Your task to perform on an android device: Open calendar and show me the second week of next month Image 0: 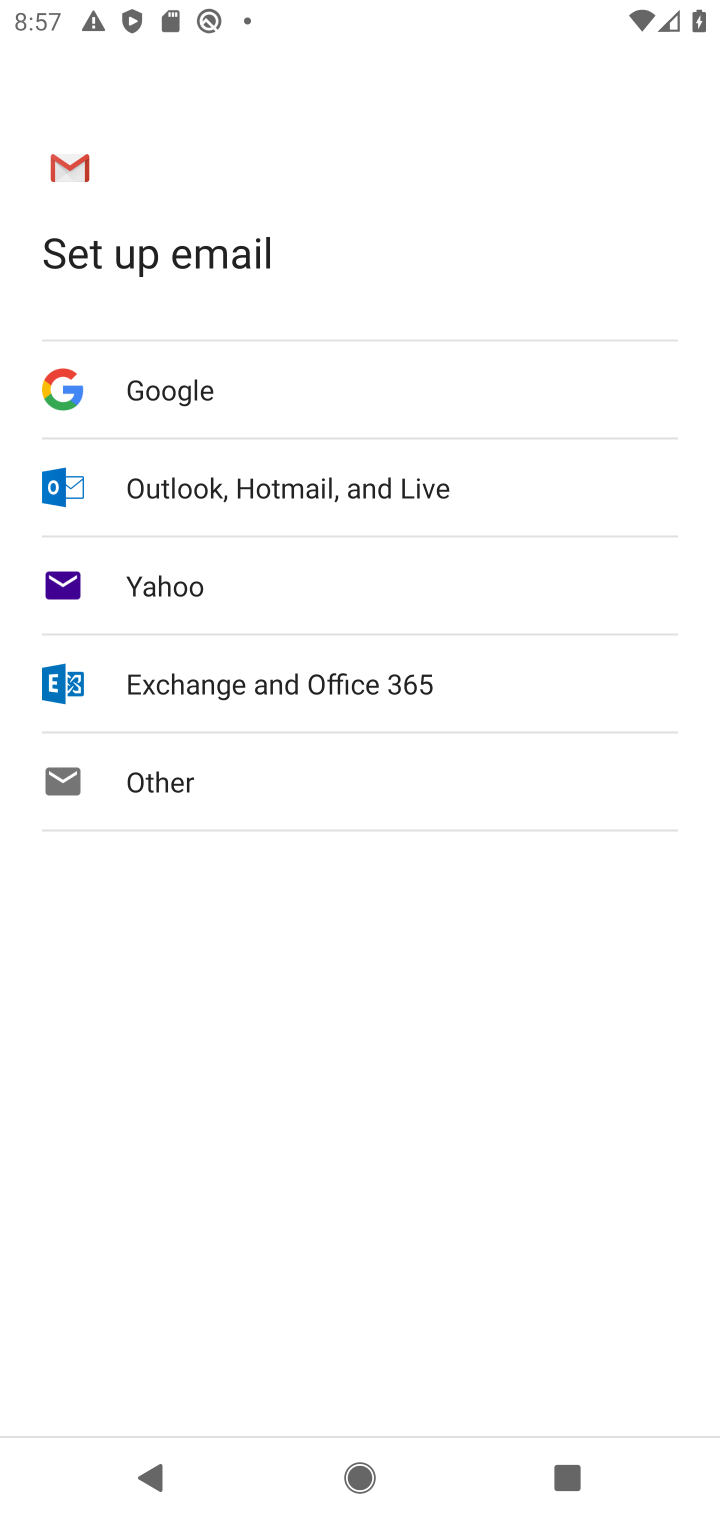
Step 0: press home button
Your task to perform on an android device: Open calendar and show me the second week of next month Image 1: 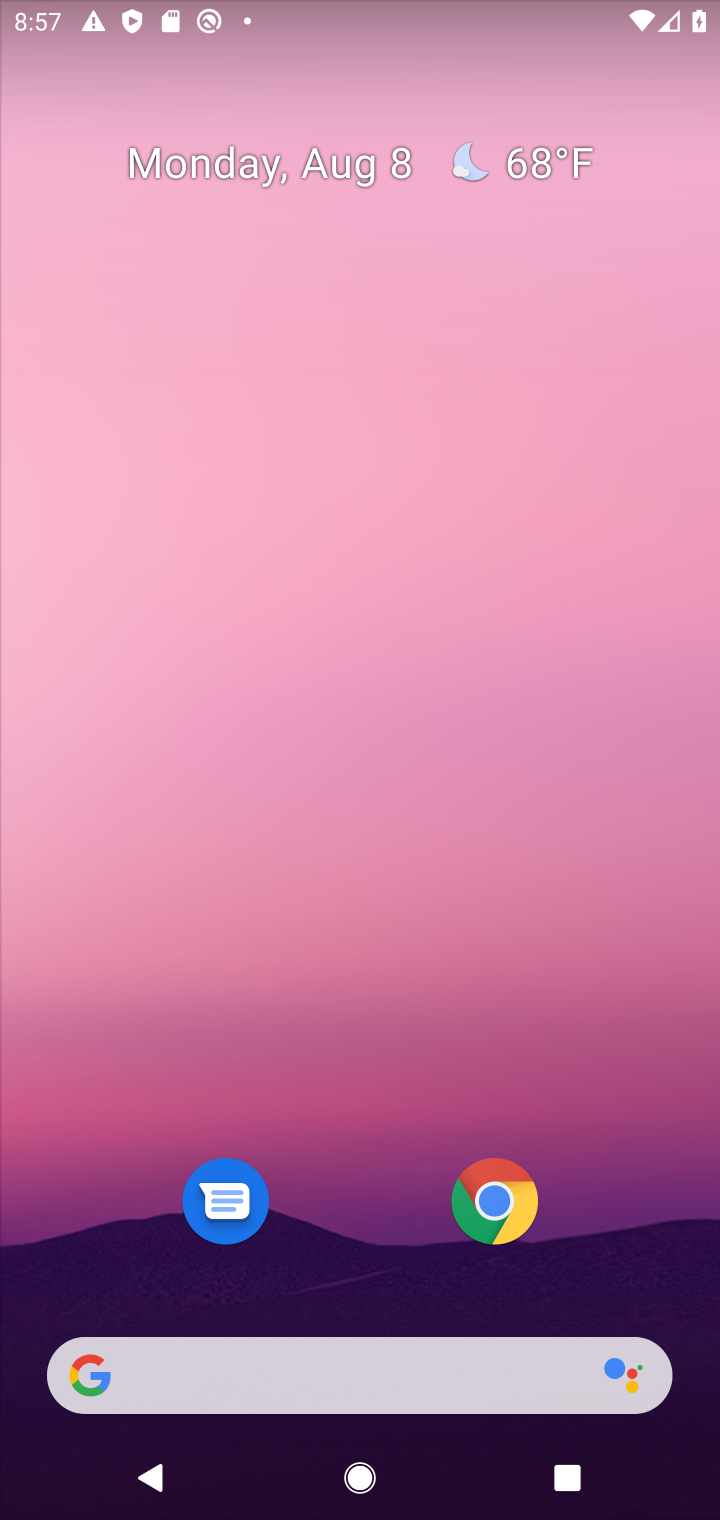
Step 1: drag from (374, 1282) to (399, 828)
Your task to perform on an android device: Open calendar and show me the second week of next month Image 2: 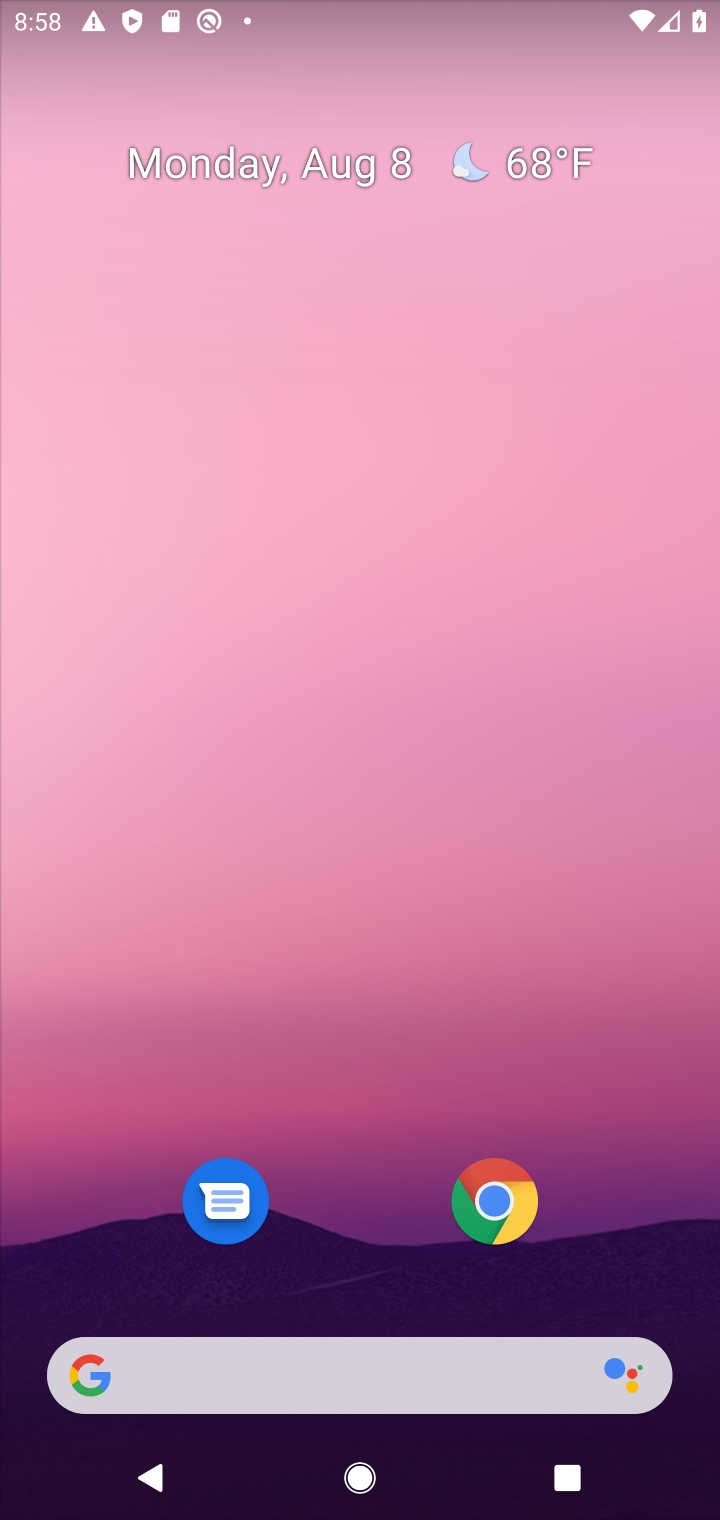
Step 2: drag from (612, 1231) to (639, 185)
Your task to perform on an android device: Open calendar and show me the second week of next month Image 3: 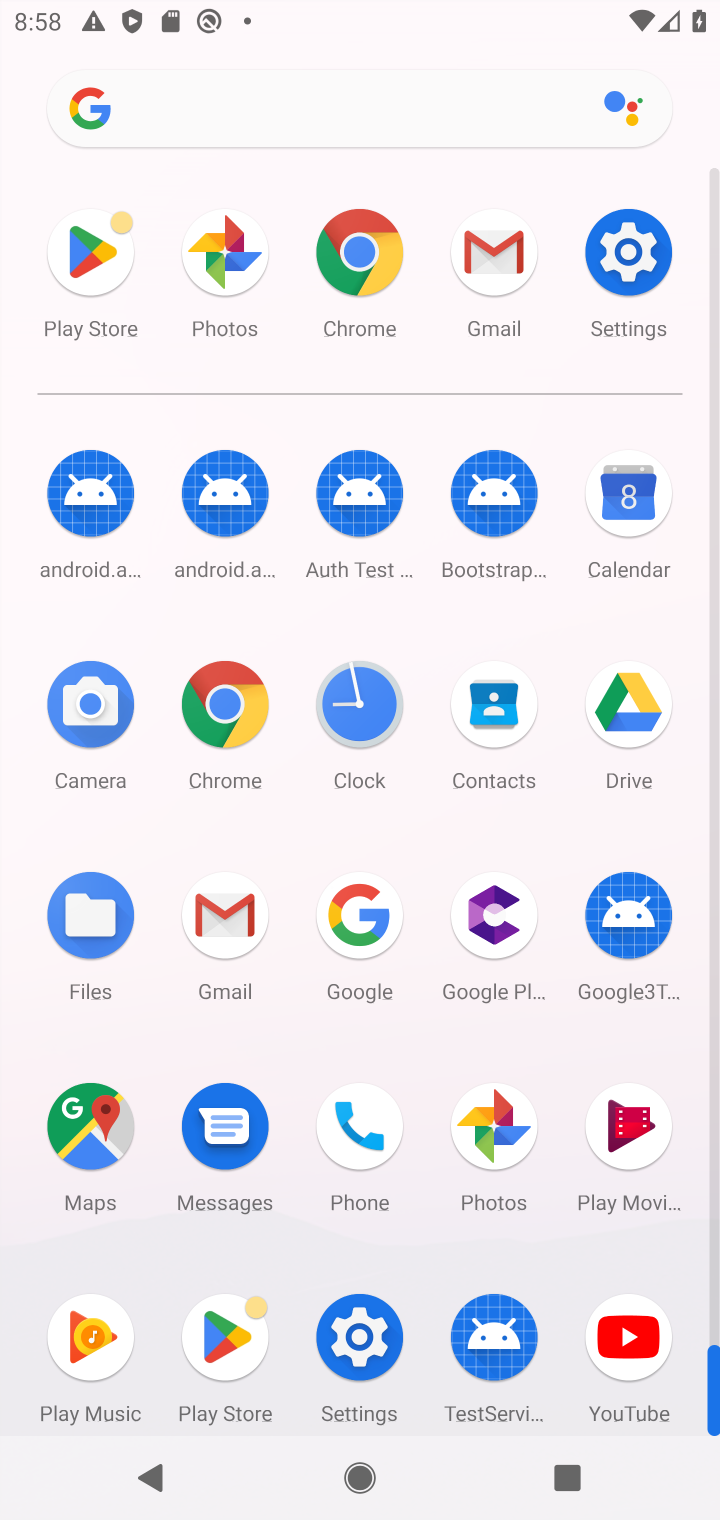
Step 3: click (636, 496)
Your task to perform on an android device: Open calendar and show me the second week of next month Image 4: 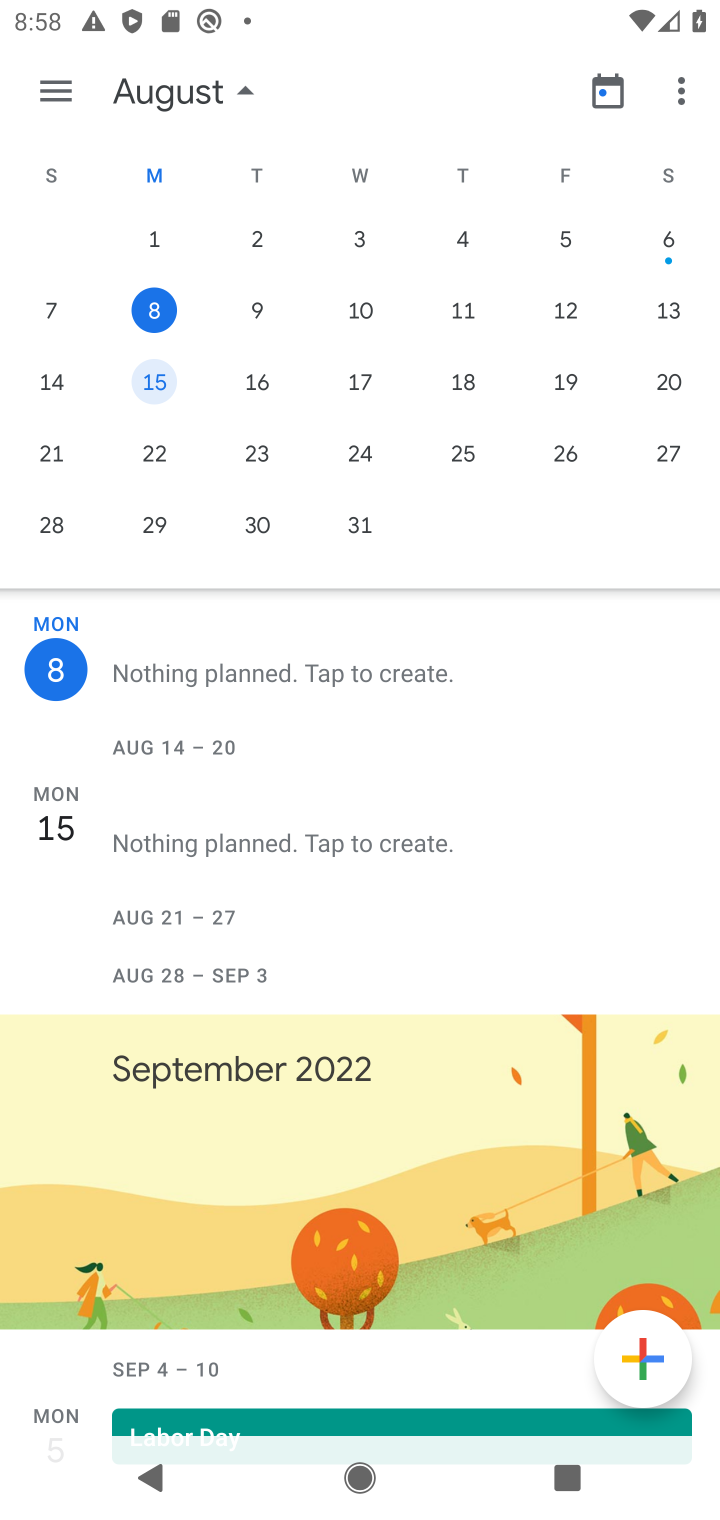
Step 4: drag from (417, 275) to (16, 241)
Your task to perform on an android device: Open calendar and show me the second week of next month Image 5: 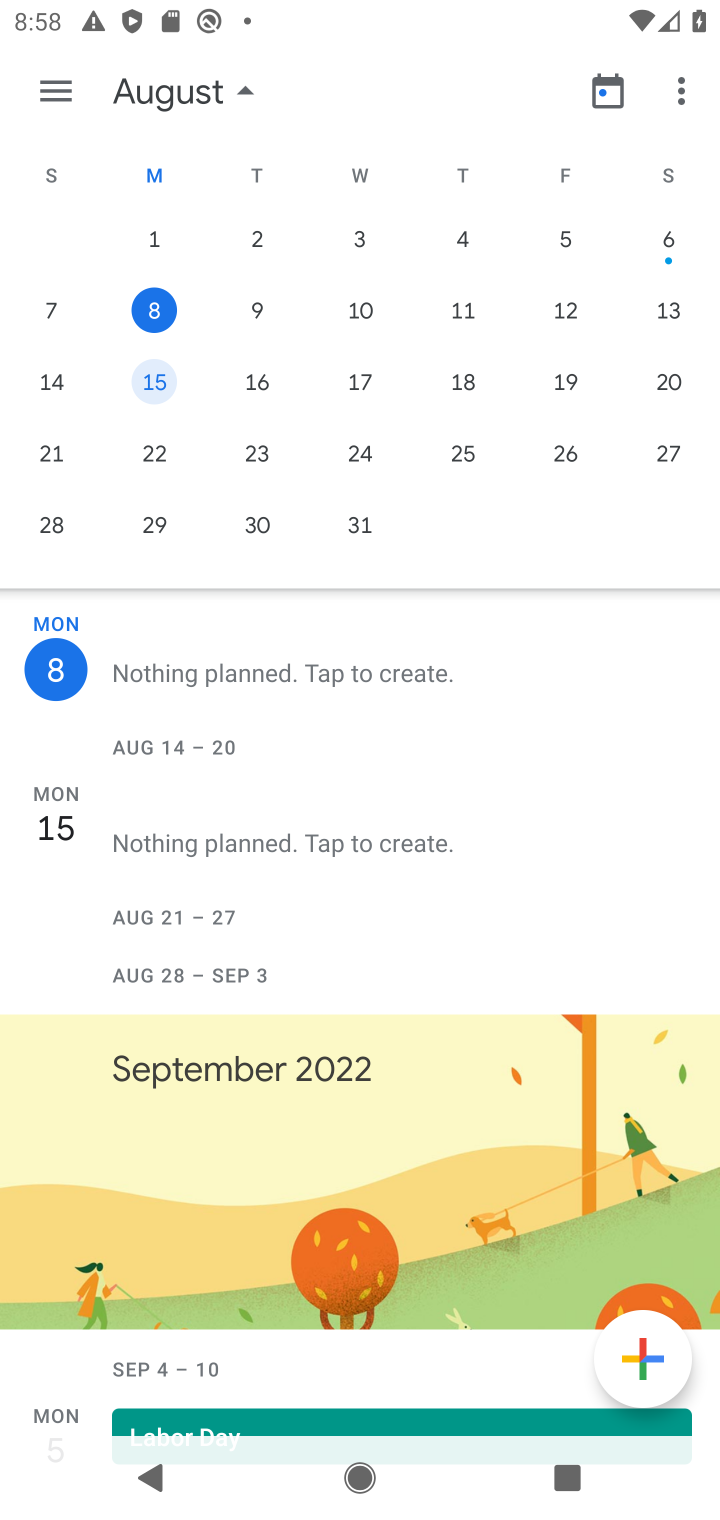
Step 5: drag from (584, 279) to (0, 236)
Your task to perform on an android device: Open calendar and show me the second week of next month Image 6: 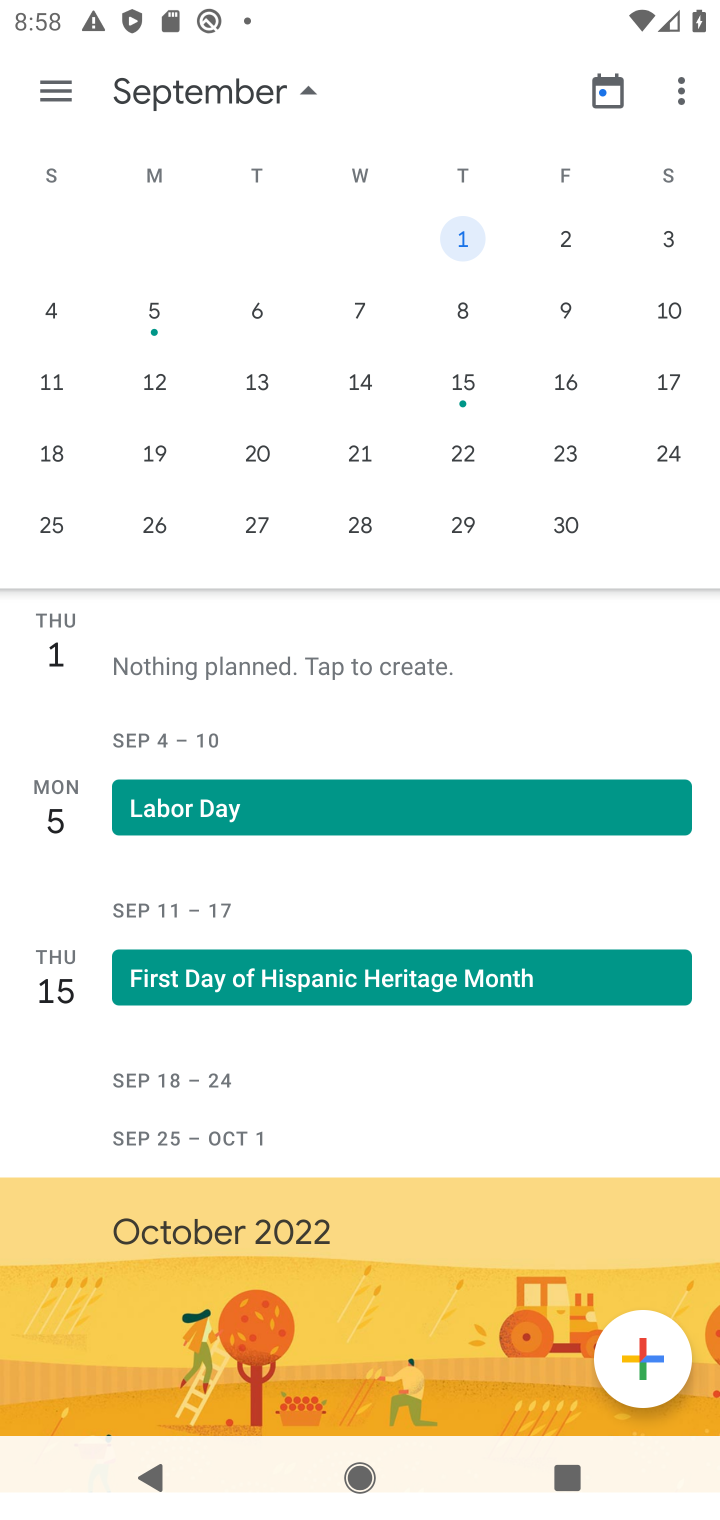
Step 6: click (153, 310)
Your task to perform on an android device: Open calendar and show me the second week of next month Image 7: 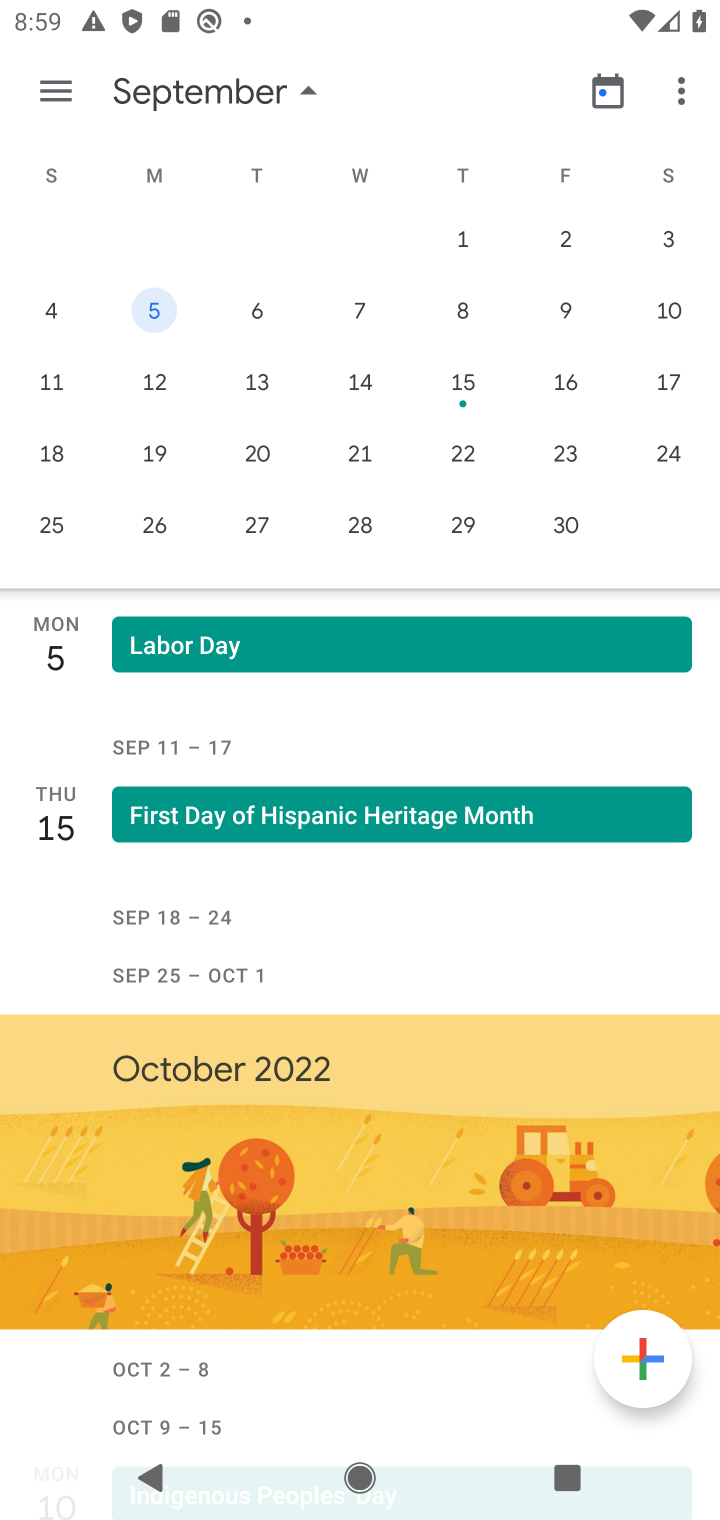
Step 7: task complete